Your task to perform on an android device: show emergency info Image 0: 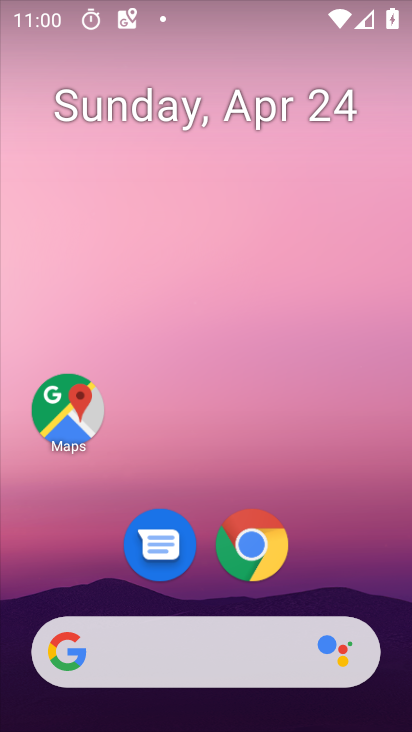
Step 0: drag from (262, 694) to (276, 142)
Your task to perform on an android device: show emergency info Image 1: 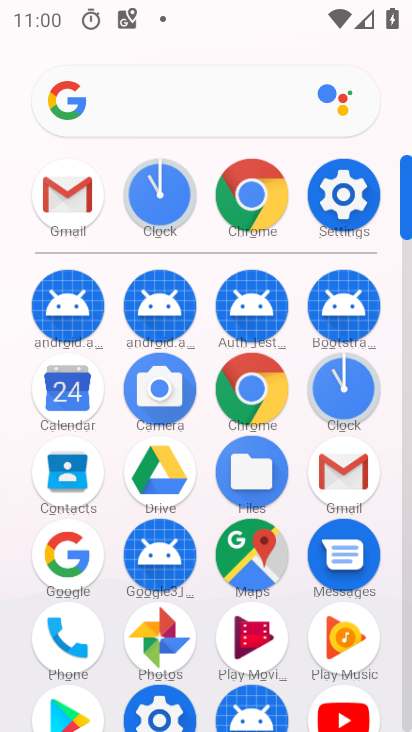
Step 1: click (352, 195)
Your task to perform on an android device: show emergency info Image 2: 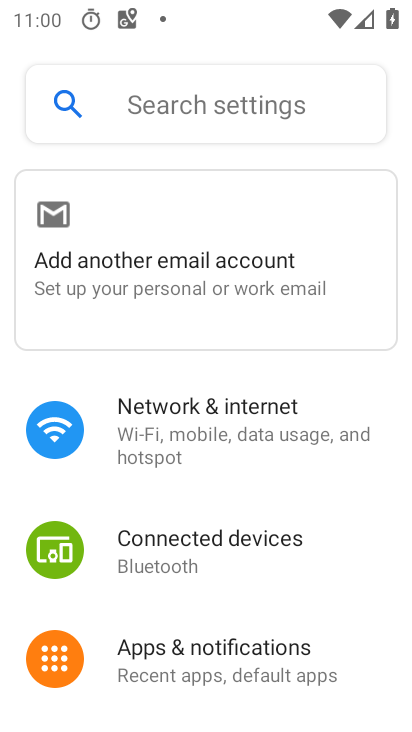
Step 2: click (192, 110)
Your task to perform on an android device: show emergency info Image 3: 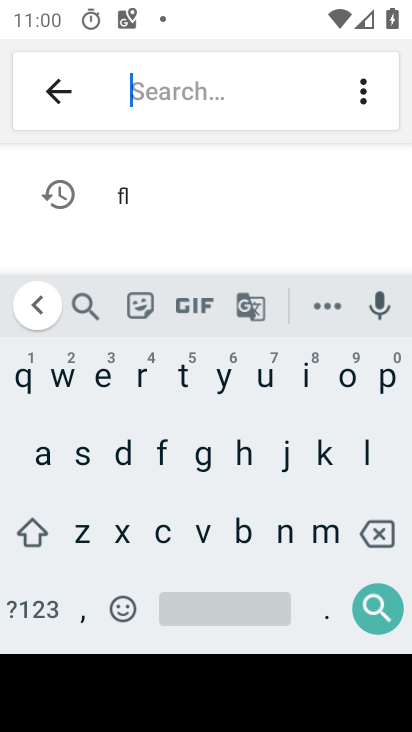
Step 3: click (98, 380)
Your task to perform on an android device: show emergency info Image 4: 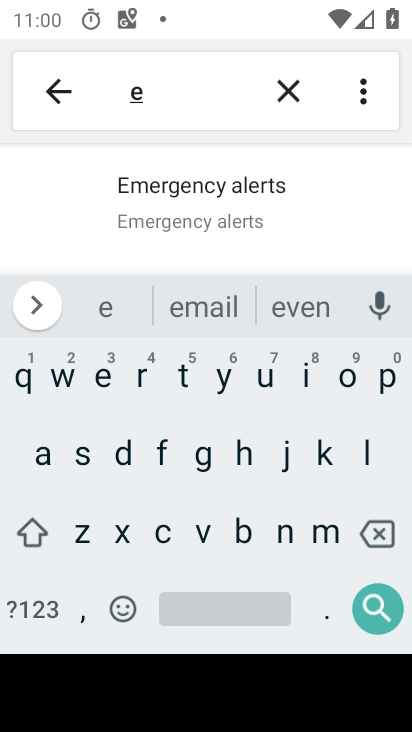
Step 4: click (374, 540)
Your task to perform on an android device: show emergency info Image 5: 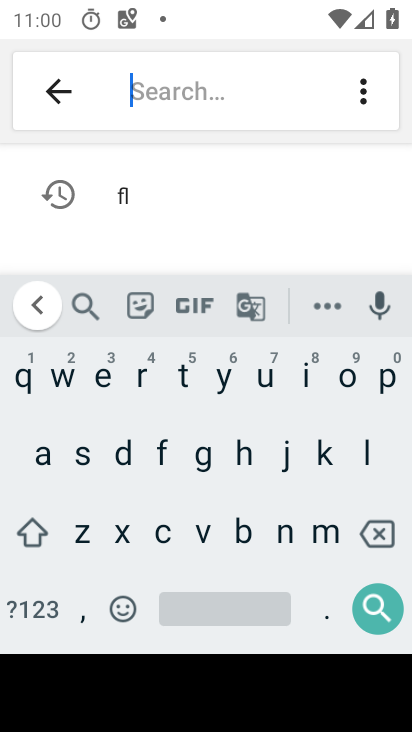
Step 5: click (108, 388)
Your task to perform on an android device: show emergency info Image 6: 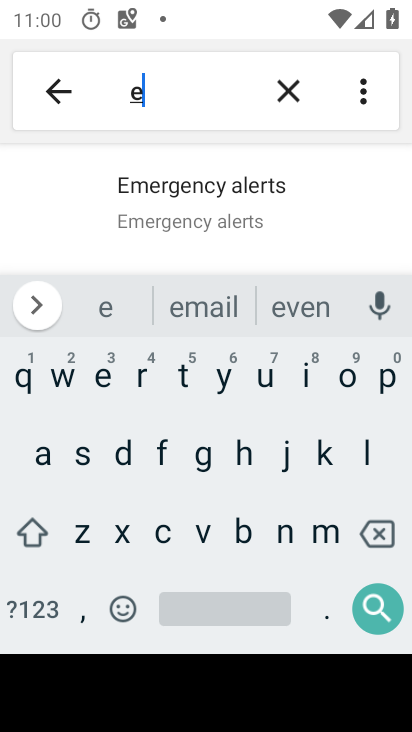
Step 6: click (323, 529)
Your task to perform on an android device: show emergency info Image 7: 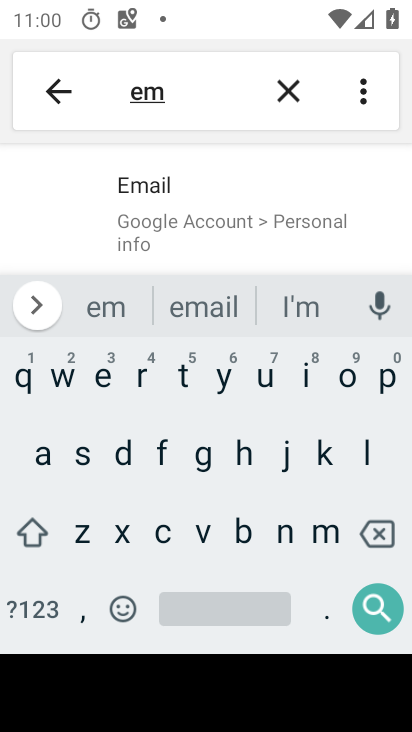
Step 7: click (113, 368)
Your task to perform on an android device: show emergency info Image 8: 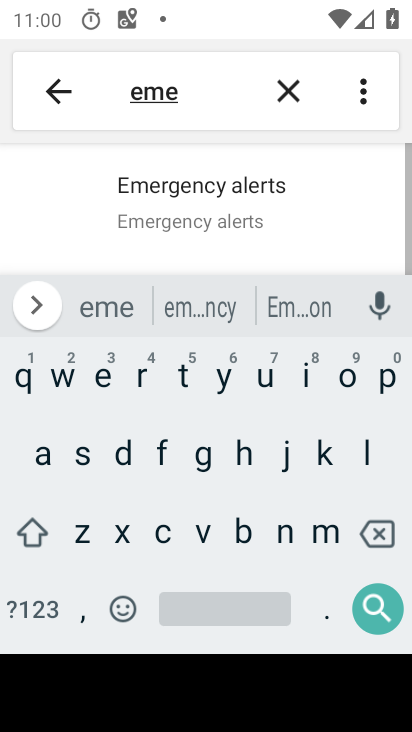
Step 8: click (199, 310)
Your task to perform on an android device: show emergency info Image 9: 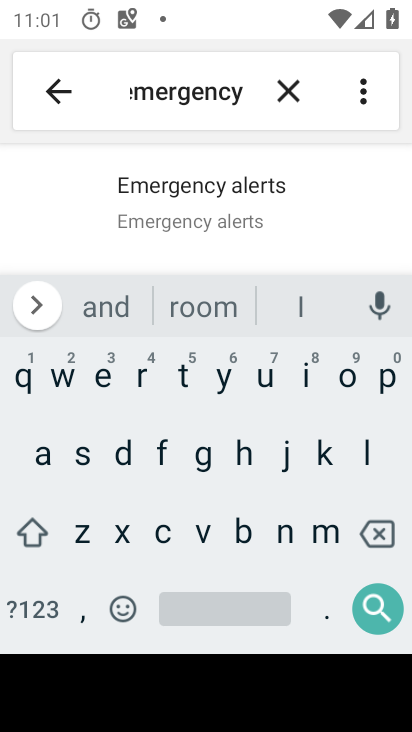
Step 9: click (299, 382)
Your task to perform on an android device: show emergency info Image 10: 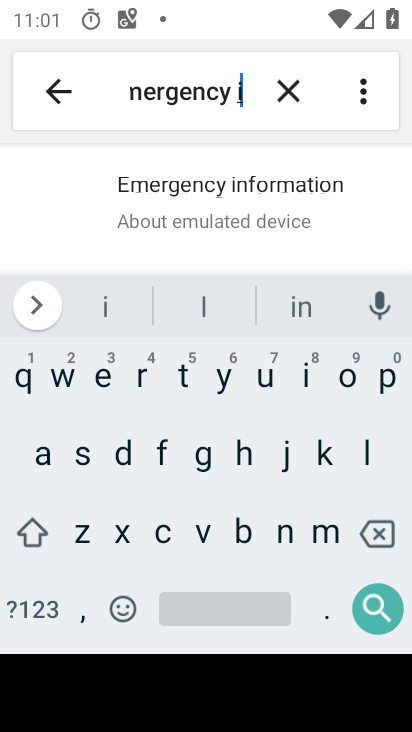
Step 10: click (219, 203)
Your task to perform on an android device: show emergency info Image 11: 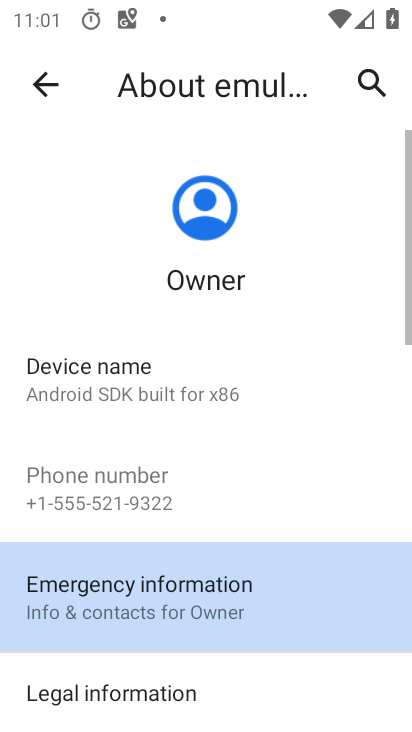
Step 11: click (159, 580)
Your task to perform on an android device: show emergency info Image 12: 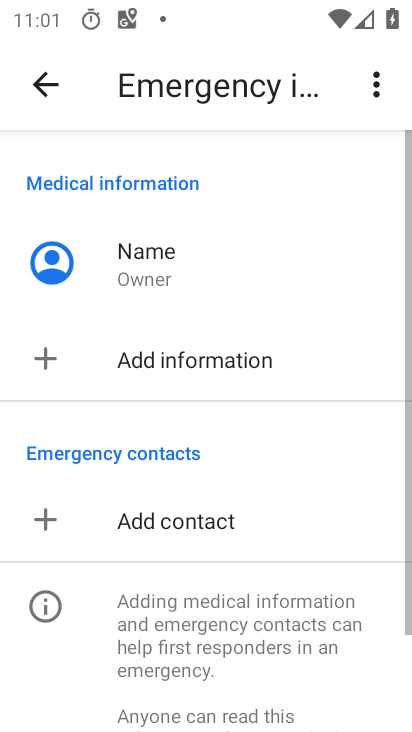
Step 12: task complete